Your task to perform on an android device: open a bookmark in the chrome app Image 0: 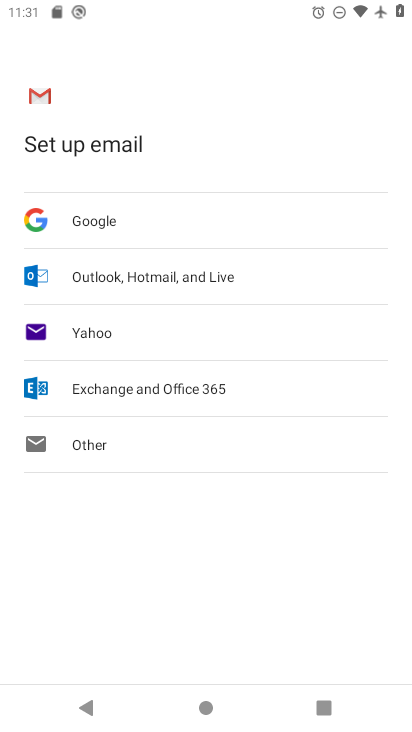
Step 0: press home button
Your task to perform on an android device: open a bookmark in the chrome app Image 1: 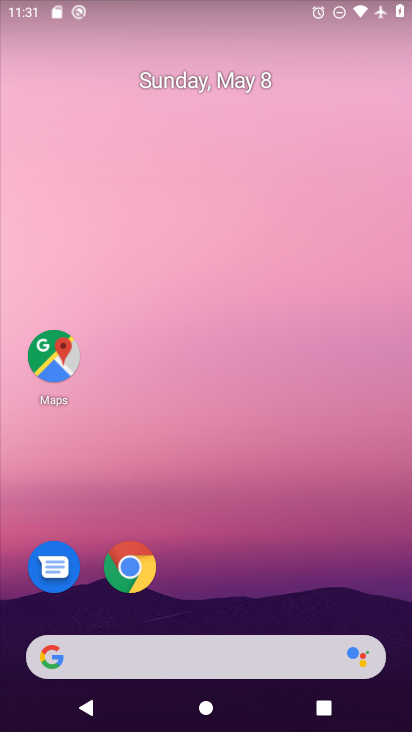
Step 1: click (134, 588)
Your task to perform on an android device: open a bookmark in the chrome app Image 2: 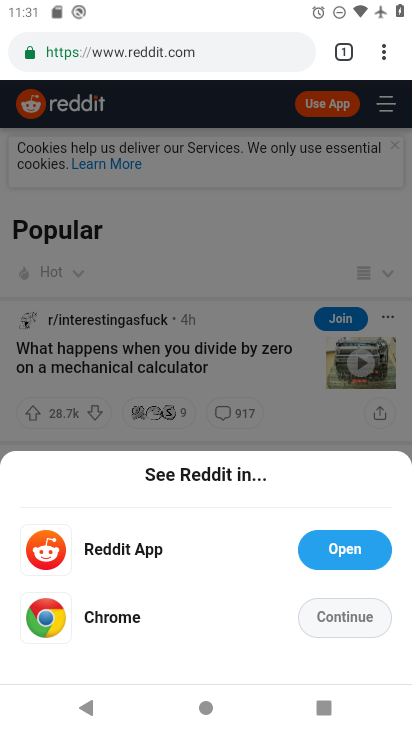
Step 2: click (348, 620)
Your task to perform on an android device: open a bookmark in the chrome app Image 3: 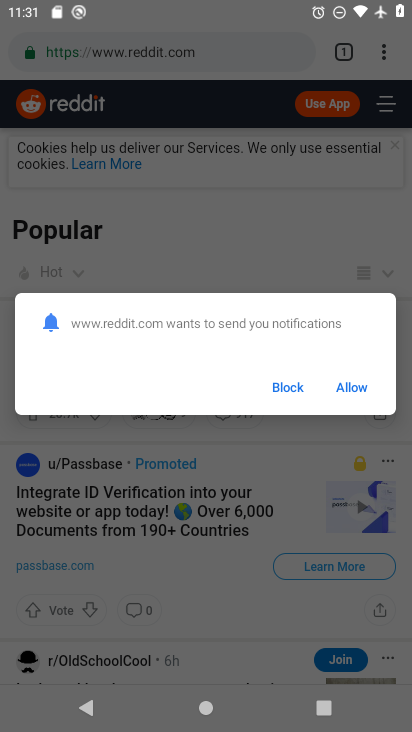
Step 3: click (281, 393)
Your task to perform on an android device: open a bookmark in the chrome app Image 4: 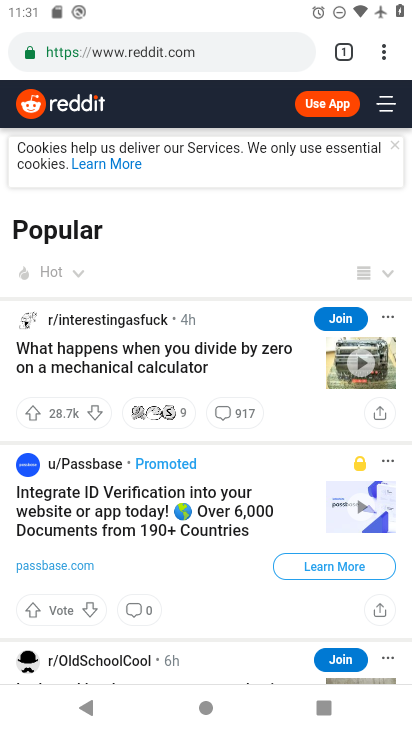
Step 4: click (384, 51)
Your task to perform on an android device: open a bookmark in the chrome app Image 5: 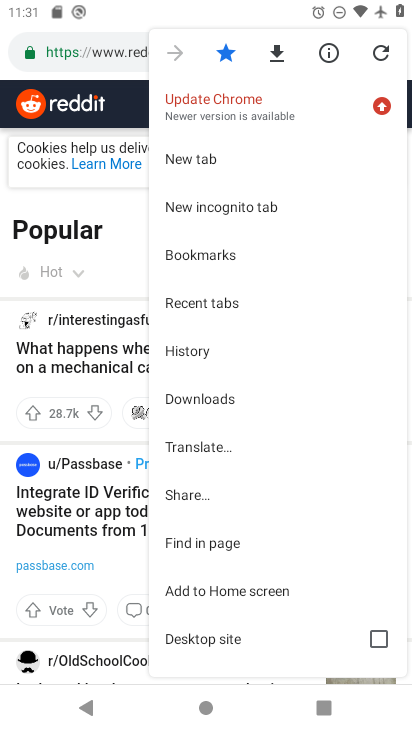
Step 5: click (191, 244)
Your task to perform on an android device: open a bookmark in the chrome app Image 6: 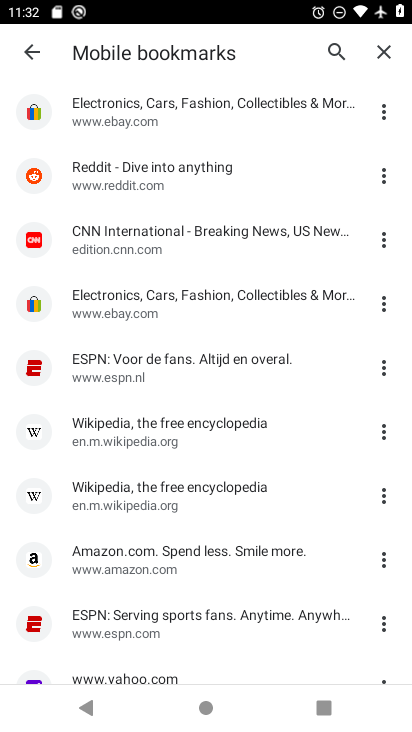
Step 6: task complete